Your task to perform on an android device: set the timer Image 0: 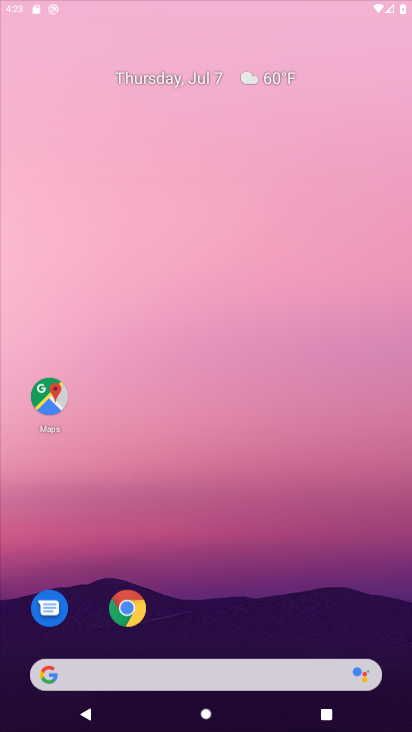
Step 0: drag from (222, 441) to (236, 94)
Your task to perform on an android device: set the timer Image 1: 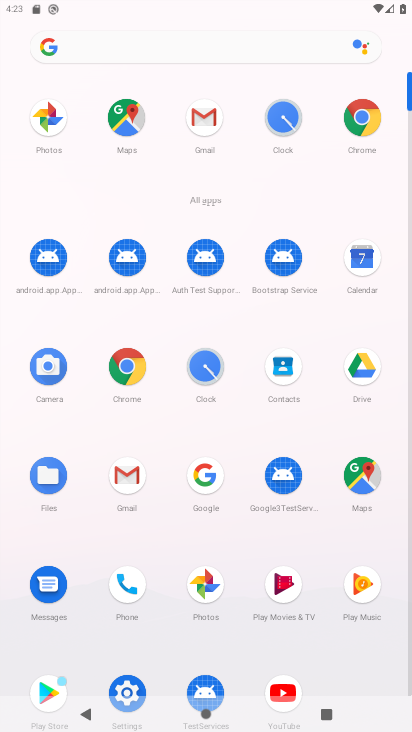
Step 1: click (199, 379)
Your task to perform on an android device: set the timer Image 2: 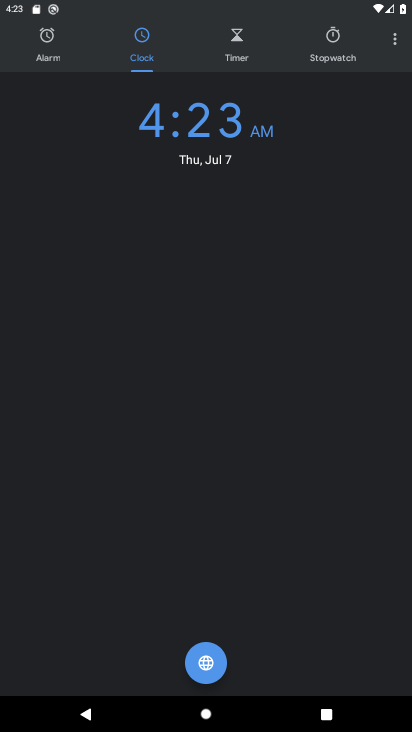
Step 2: click (254, 38)
Your task to perform on an android device: set the timer Image 3: 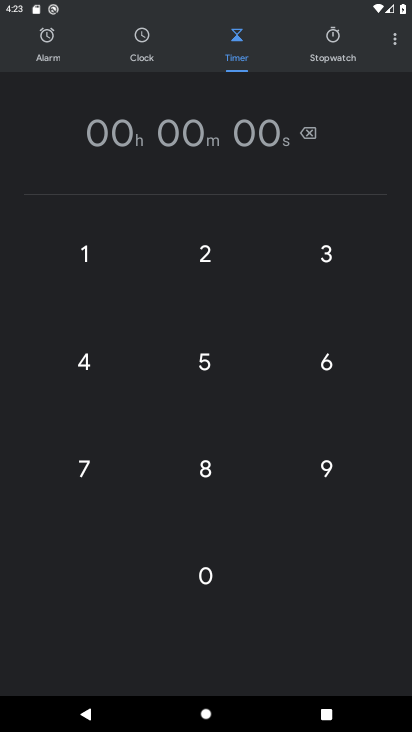
Step 3: click (234, 242)
Your task to perform on an android device: set the timer Image 4: 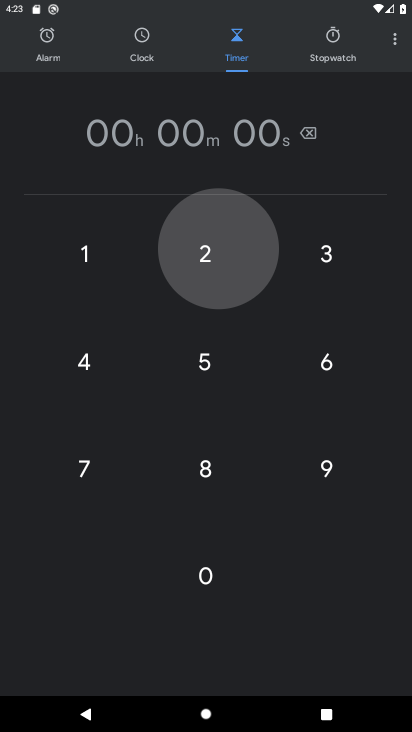
Step 4: click (234, 242)
Your task to perform on an android device: set the timer Image 5: 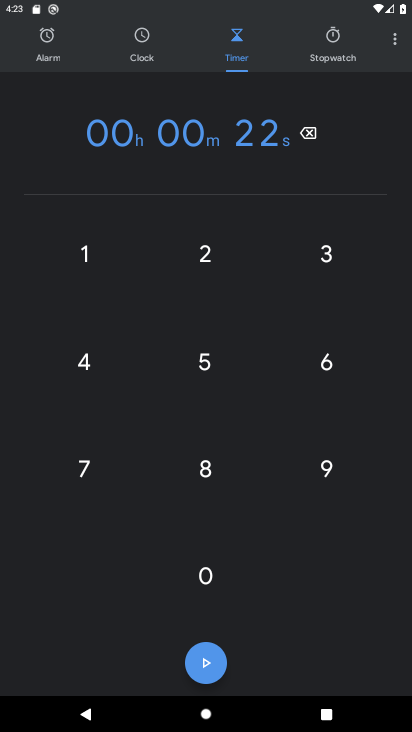
Step 5: click (314, 258)
Your task to perform on an android device: set the timer Image 6: 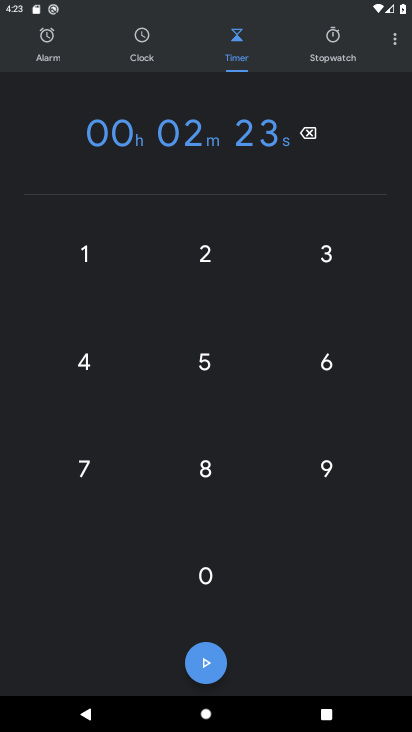
Step 6: click (124, 248)
Your task to perform on an android device: set the timer Image 7: 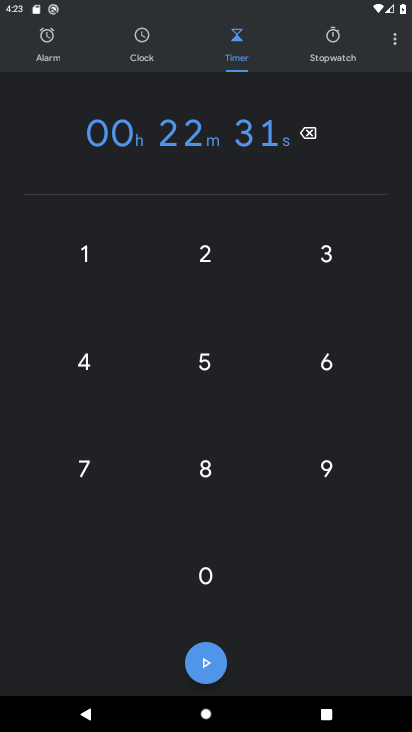
Step 7: click (124, 248)
Your task to perform on an android device: set the timer Image 8: 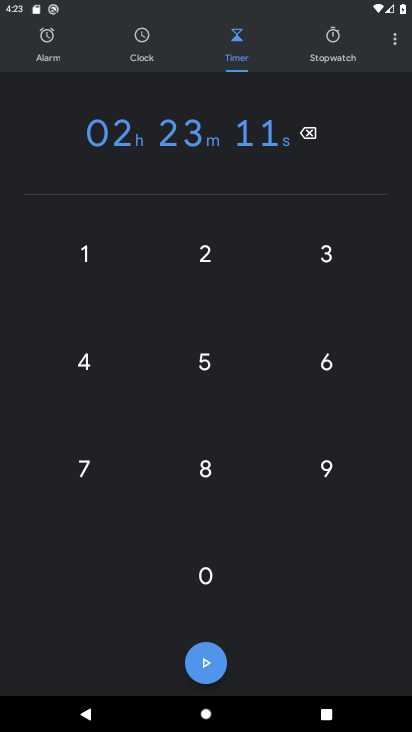
Step 8: click (200, 666)
Your task to perform on an android device: set the timer Image 9: 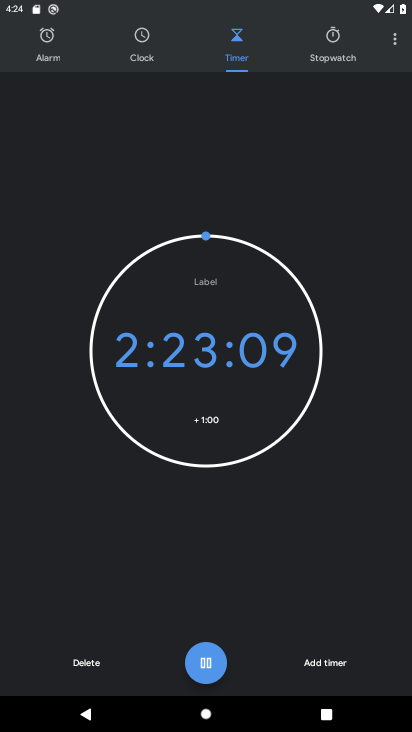
Step 9: task complete